Your task to perform on an android device: open wifi settings Image 0: 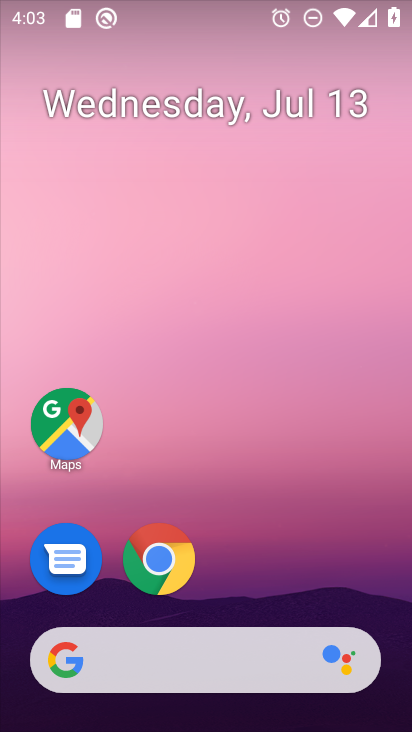
Step 0: drag from (370, 547) to (366, 72)
Your task to perform on an android device: open wifi settings Image 1: 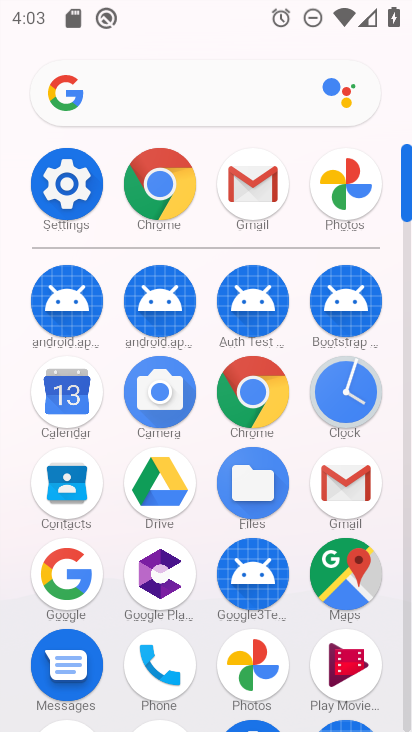
Step 1: click (75, 201)
Your task to perform on an android device: open wifi settings Image 2: 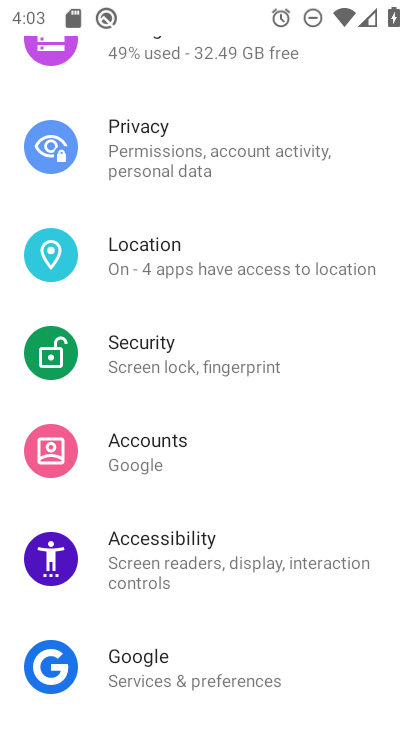
Step 2: drag from (326, 328) to (334, 440)
Your task to perform on an android device: open wifi settings Image 3: 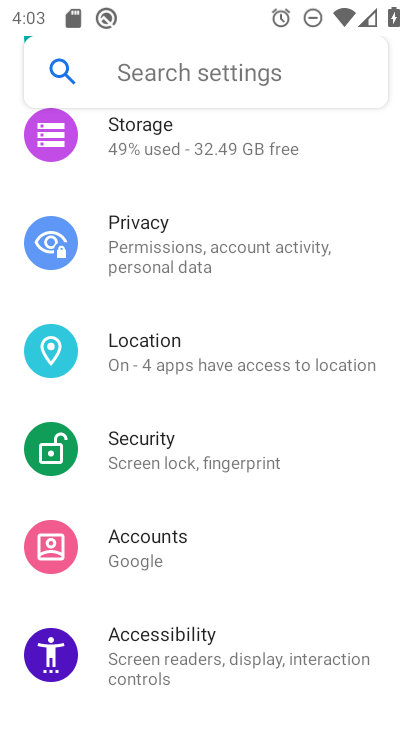
Step 3: drag from (341, 331) to (332, 451)
Your task to perform on an android device: open wifi settings Image 4: 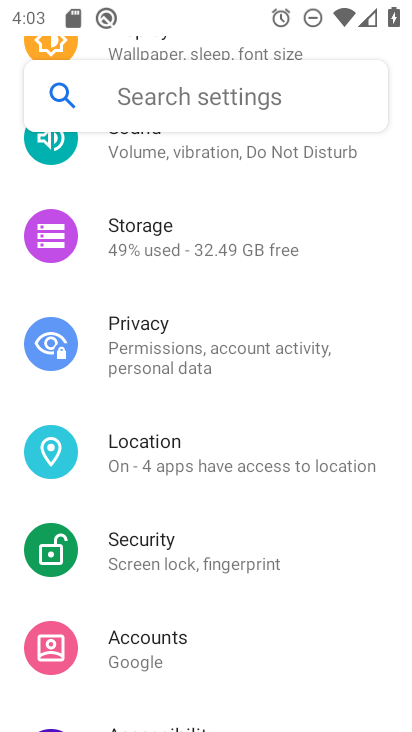
Step 4: drag from (351, 345) to (357, 414)
Your task to perform on an android device: open wifi settings Image 5: 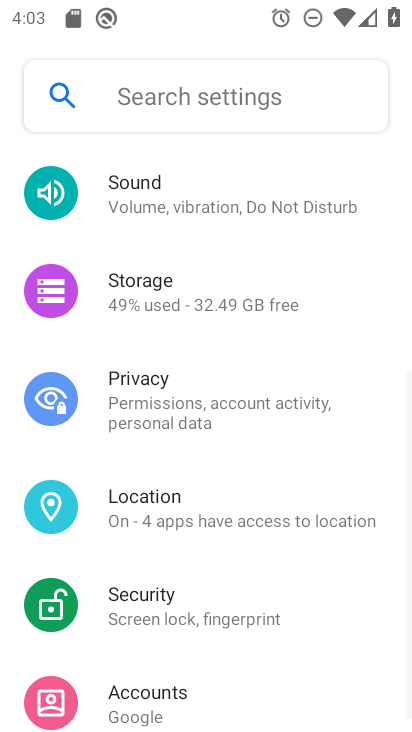
Step 5: drag from (349, 342) to (350, 423)
Your task to perform on an android device: open wifi settings Image 6: 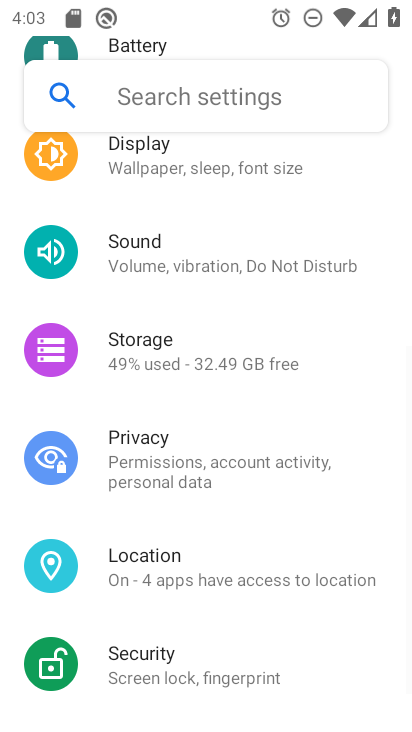
Step 6: drag from (348, 326) to (346, 424)
Your task to perform on an android device: open wifi settings Image 7: 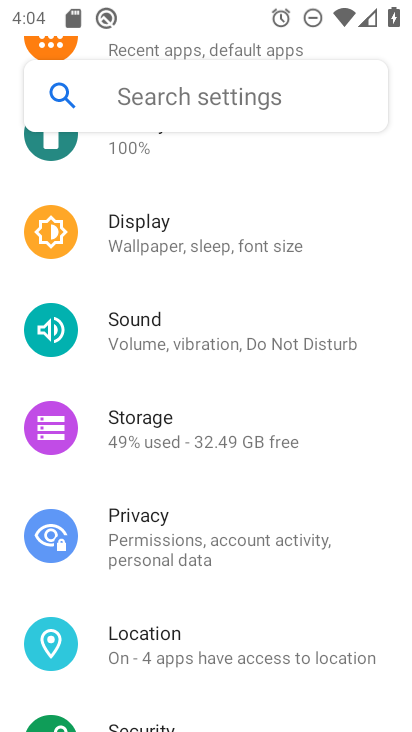
Step 7: drag from (345, 310) to (354, 423)
Your task to perform on an android device: open wifi settings Image 8: 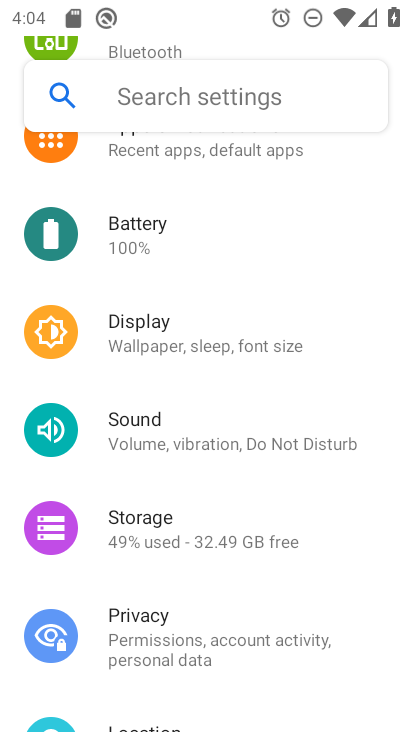
Step 8: drag from (336, 313) to (345, 405)
Your task to perform on an android device: open wifi settings Image 9: 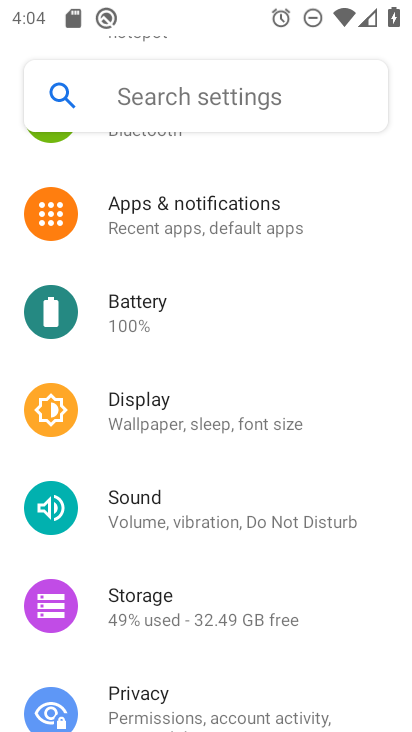
Step 9: drag from (341, 309) to (333, 463)
Your task to perform on an android device: open wifi settings Image 10: 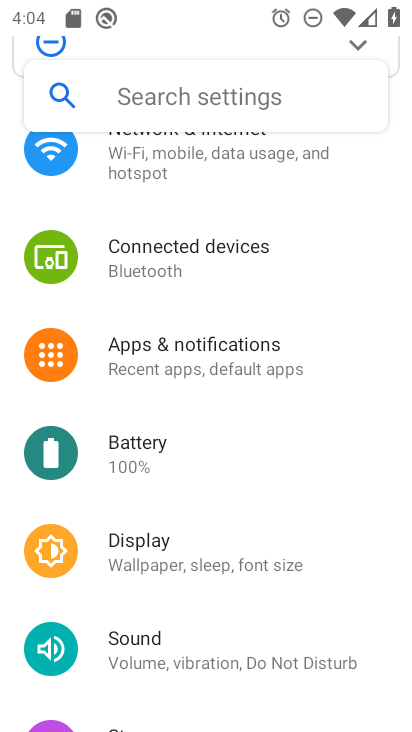
Step 10: drag from (332, 309) to (328, 433)
Your task to perform on an android device: open wifi settings Image 11: 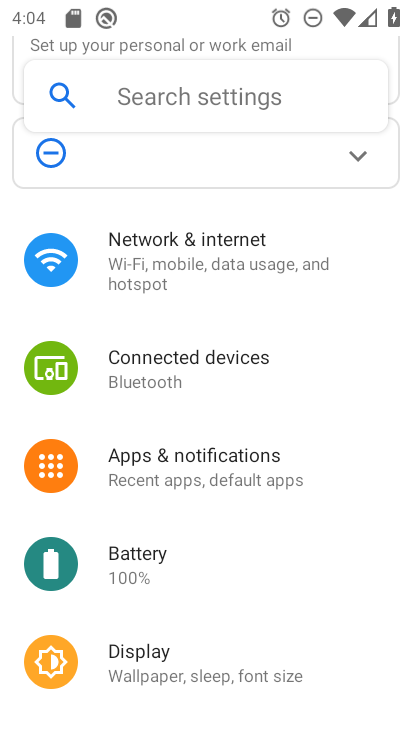
Step 11: drag from (343, 308) to (336, 456)
Your task to perform on an android device: open wifi settings Image 12: 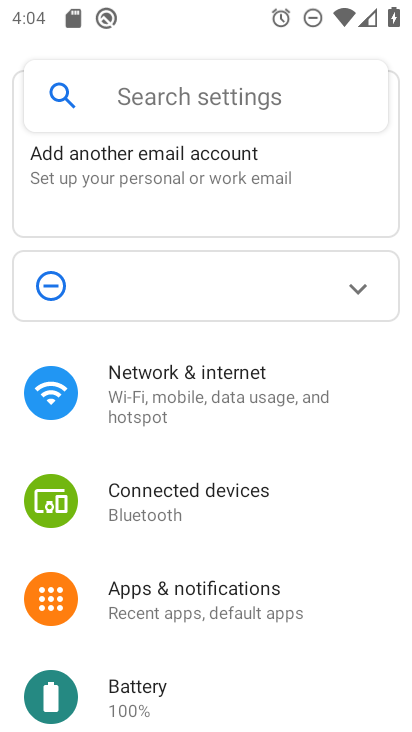
Step 12: drag from (357, 364) to (360, 551)
Your task to perform on an android device: open wifi settings Image 13: 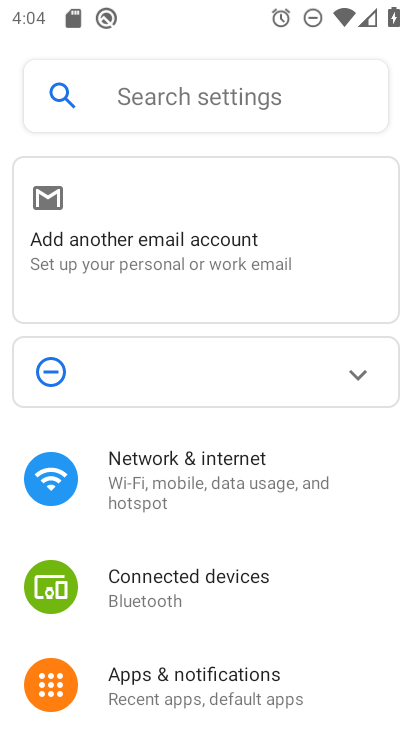
Step 13: click (253, 484)
Your task to perform on an android device: open wifi settings Image 14: 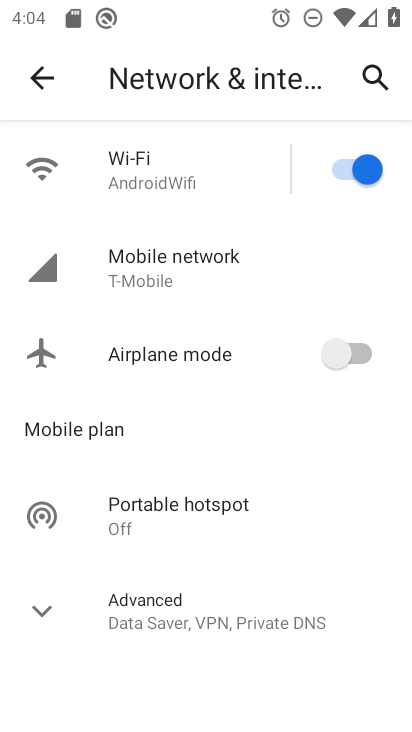
Step 14: click (167, 173)
Your task to perform on an android device: open wifi settings Image 15: 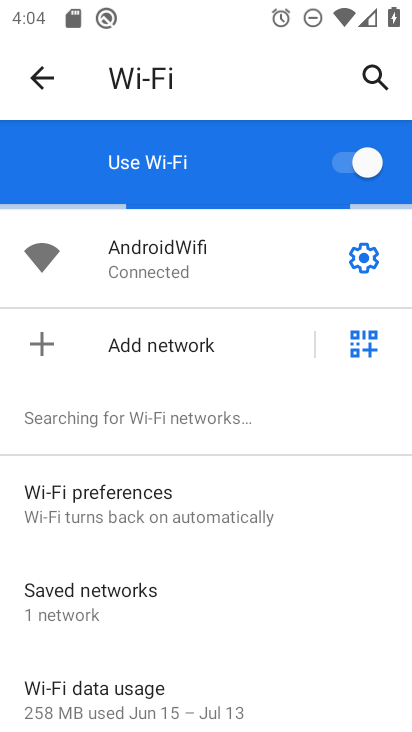
Step 15: task complete